Your task to perform on an android device: Show me recent news Image 0: 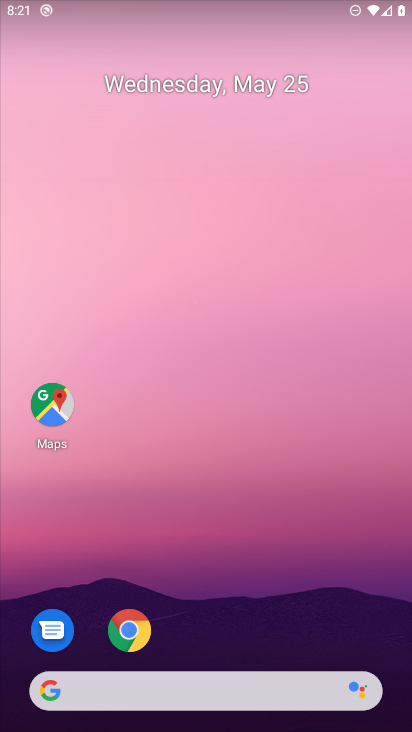
Step 0: drag from (204, 623) to (242, 295)
Your task to perform on an android device: Show me recent news Image 1: 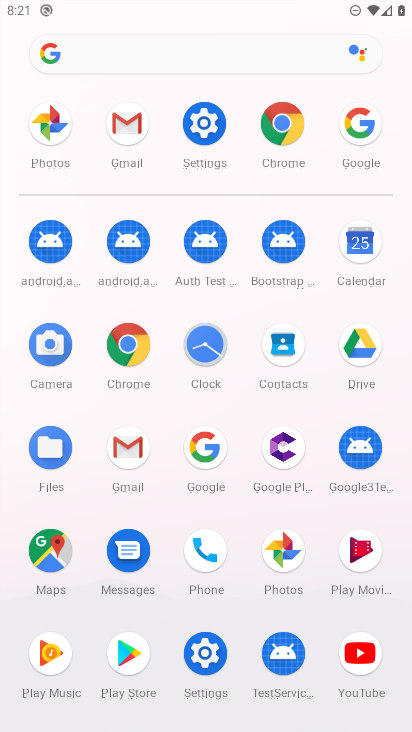
Step 1: click (360, 122)
Your task to perform on an android device: Show me recent news Image 2: 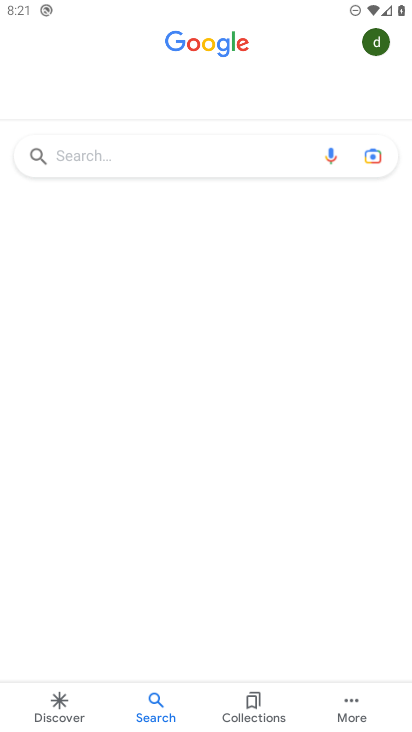
Step 2: click (159, 148)
Your task to perform on an android device: Show me recent news Image 3: 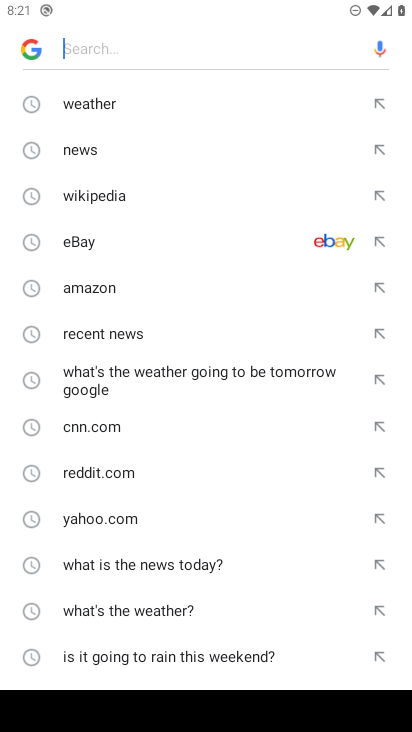
Step 3: click (113, 328)
Your task to perform on an android device: Show me recent news Image 4: 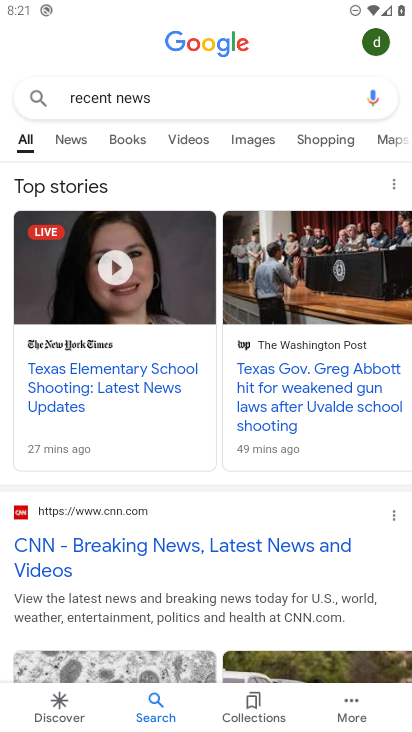
Step 4: drag from (376, 389) to (14, 544)
Your task to perform on an android device: Show me recent news Image 5: 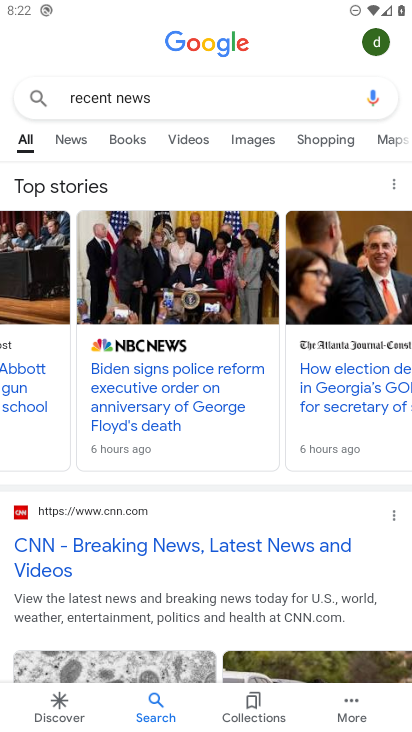
Step 5: drag from (216, 644) to (261, 273)
Your task to perform on an android device: Show me recent news Image 6: 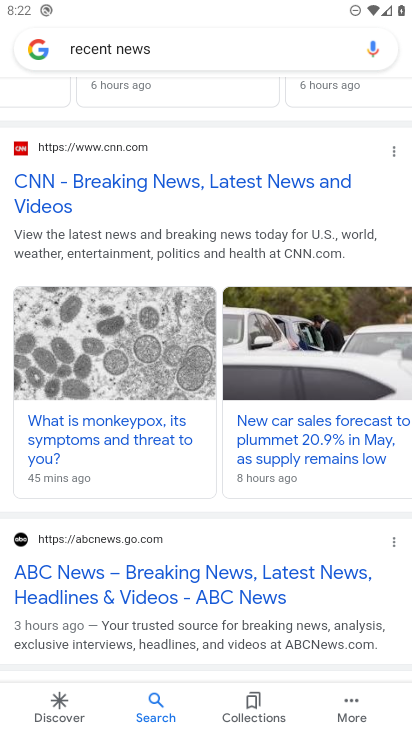
Step 6: click (260, 342)
Your task to perform on an android device: Show me recent news Image 7: 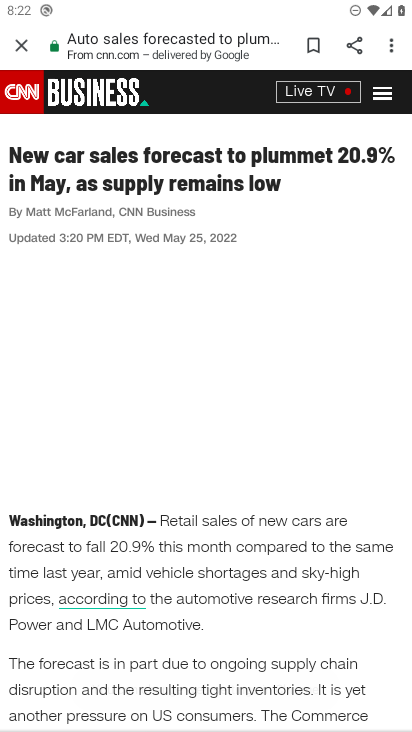
Step 7: task complete